Your task to perform on an android device: Open Chrome and go to settings Image 0: 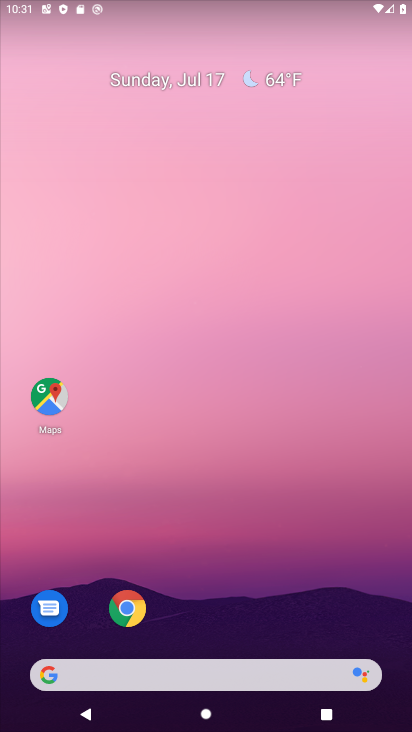
Step 0: drag from (352, 625) to (229, 79)
Your task to perform on an android device: Open Chrome and go to settings Image 1: 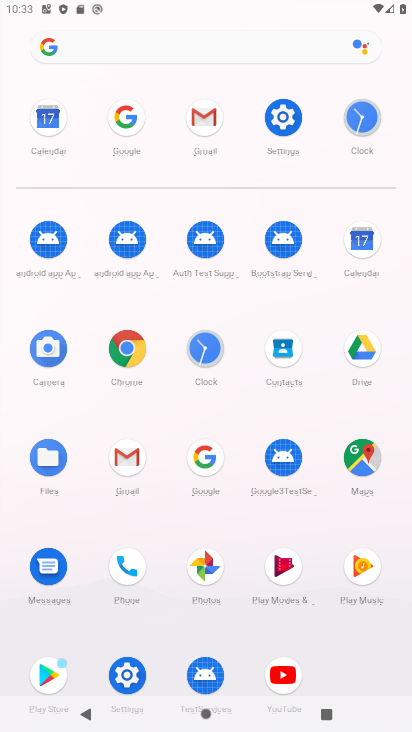
Step 1: click (122, 359)
Your task to perform on an android device: Open Chrome and go to settings Image 2: 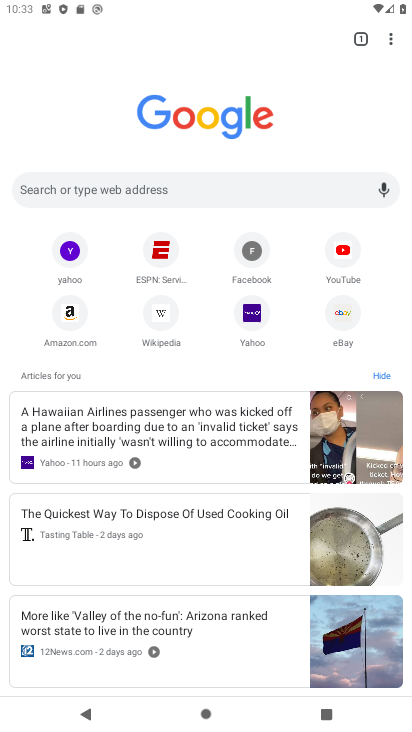
Step 2: click (391, 34)
Your task to perform on an android device: Open Chrome and go to settings Image 3: 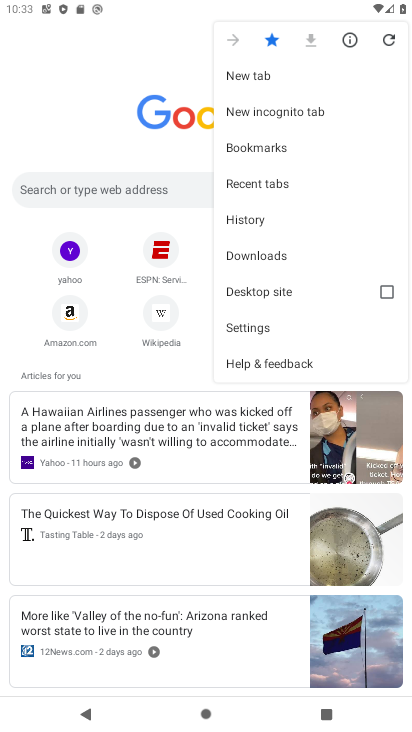
Step 3: click (257, 322)
Your task to perform on an android device: Open Chrome and go to settings Image 4: 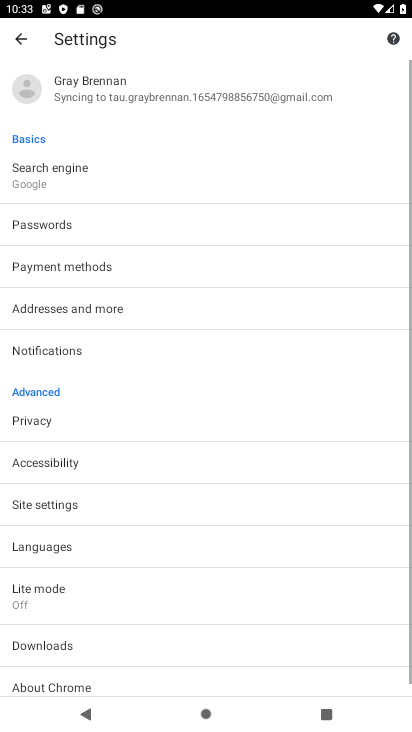
Step 4: task complete